Your task to perform on an android device: turn on notifications settings in the gmail app Image 0: 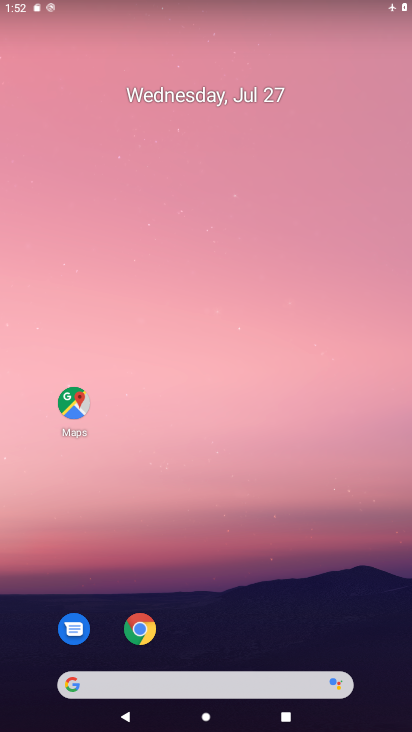
Step 0: drag from (284, 585) to (283, 136)
Your task to perform on an android device: turn on notifications settings in the gmail app Image 1: 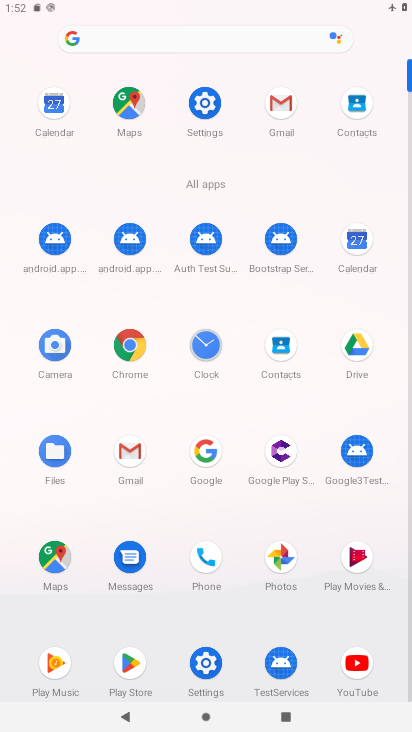
Step 1: click (125, 463)
Your task to perform on an android device: turn on notifications settings in the gmail app Image 2: 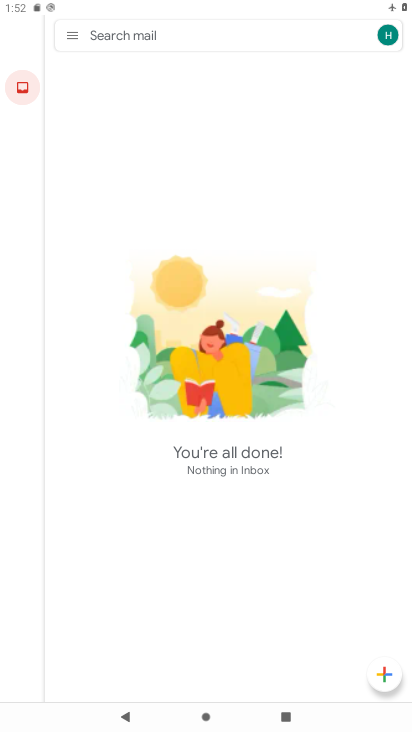
Step 2: click (71, 34)
Your task to perform on an android device: turn on notifications settings in the gmail app Image 3: 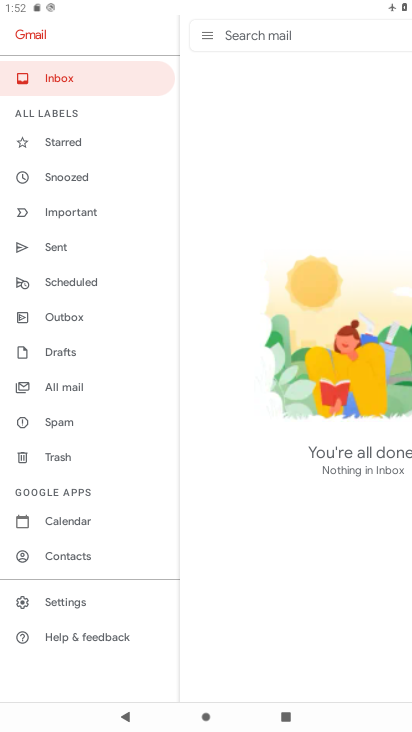
Step 3: click (77, 594)
Your task to perform on an android device: turn on notifications settings in the gmail app Image 4: 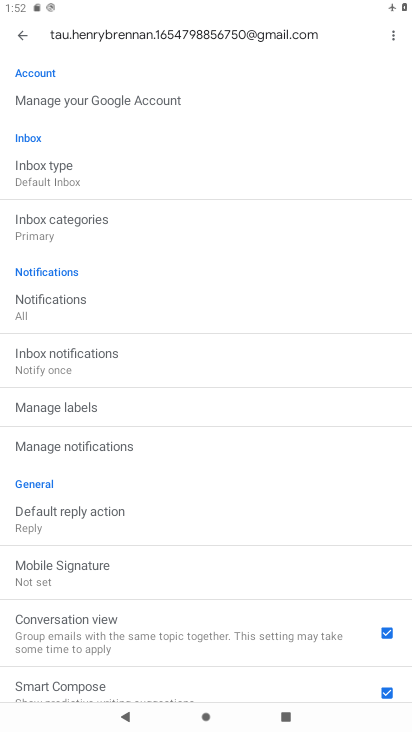
Step 4: click (120, 442)
Your task to perform on an android device: turn on notifications settings in the gmail app Image 5: 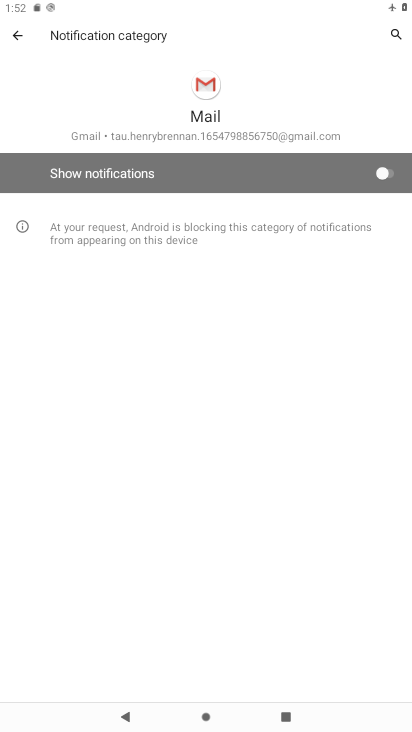
Step 5: click (382, 180)
Your task to perform on an android device: turn on notifications settings in the gmail app Image 6: 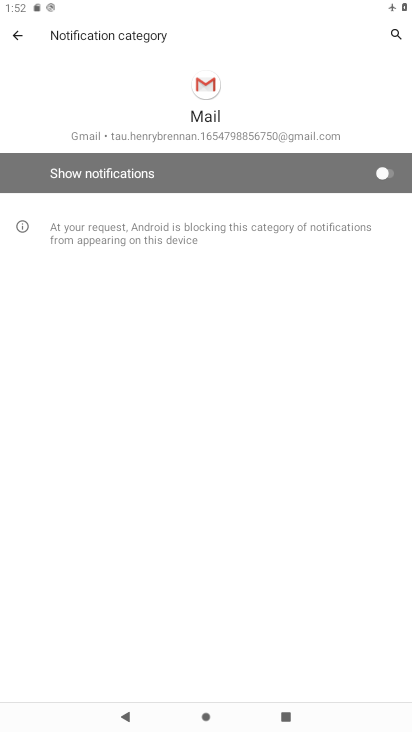
Step 6: click (377, 169)
Your task to perform on an android device: turn on notifications settings in the gmail app Image 7: 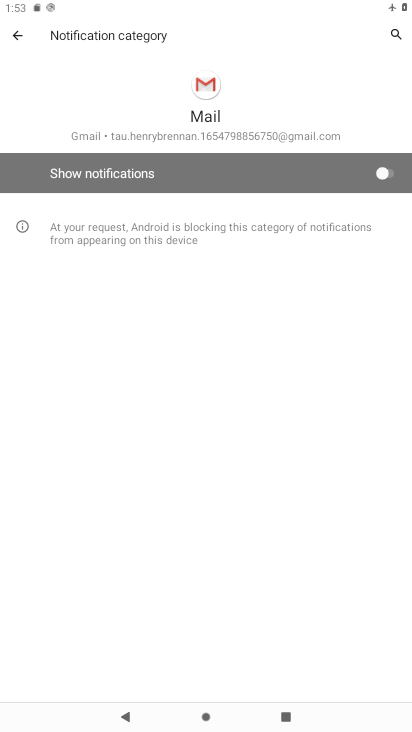
Step 7: task complete